Your task to perform on an android device: Open Chrome and go to settings Image 0: 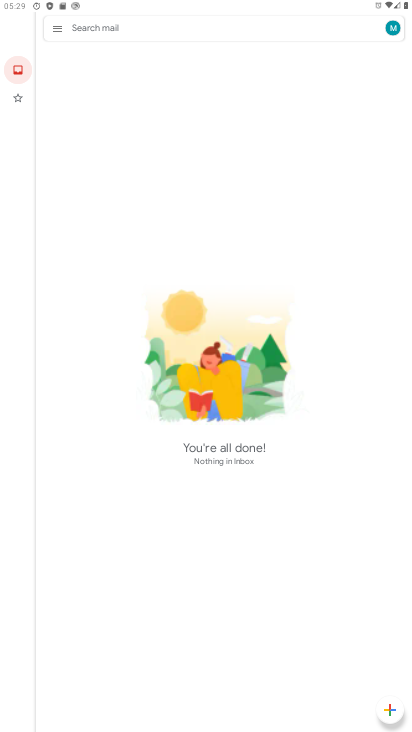
Step 0: press home button
Your task to perform on an android device: Open Chrome and go to settings Image 1: 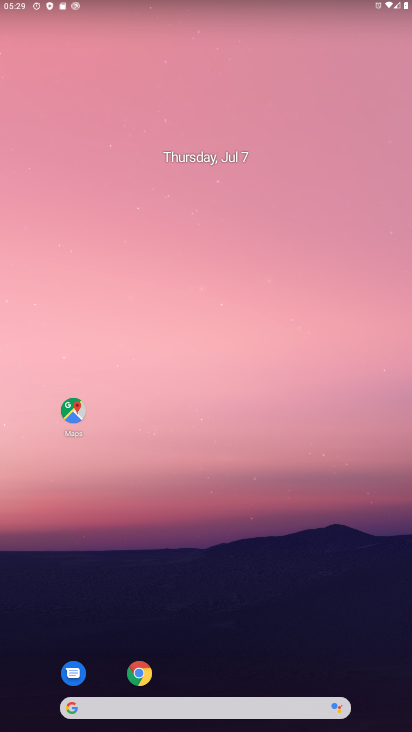
Step 1: drag from (267, 697) to (283, 23)
Your task to perform on an android device: Open Chrome and go to settings Image 2: 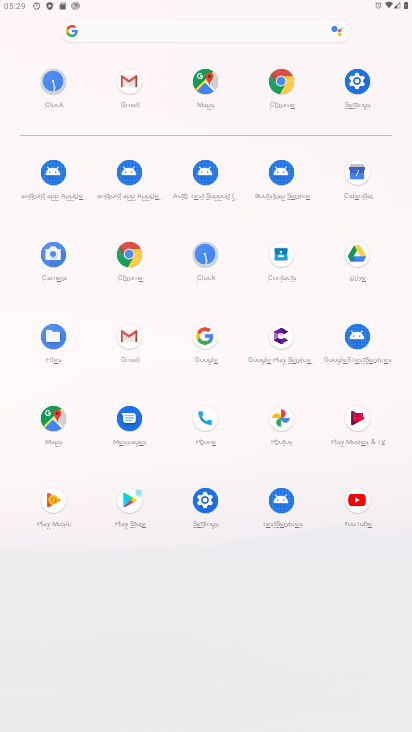
Step 2: click (128, 262)
Your task to perform on an android device: Open Chrome and go to settings Image 3: 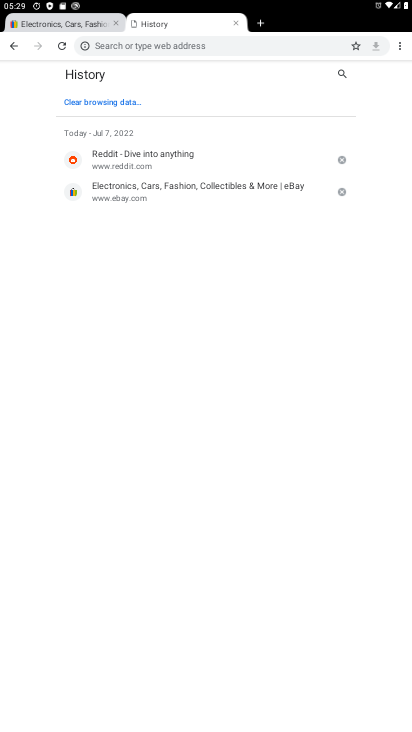
Step 3: task complete